Your task to perform on an android device: open app "Firefox Browser" (install if not already installed) Image 0: 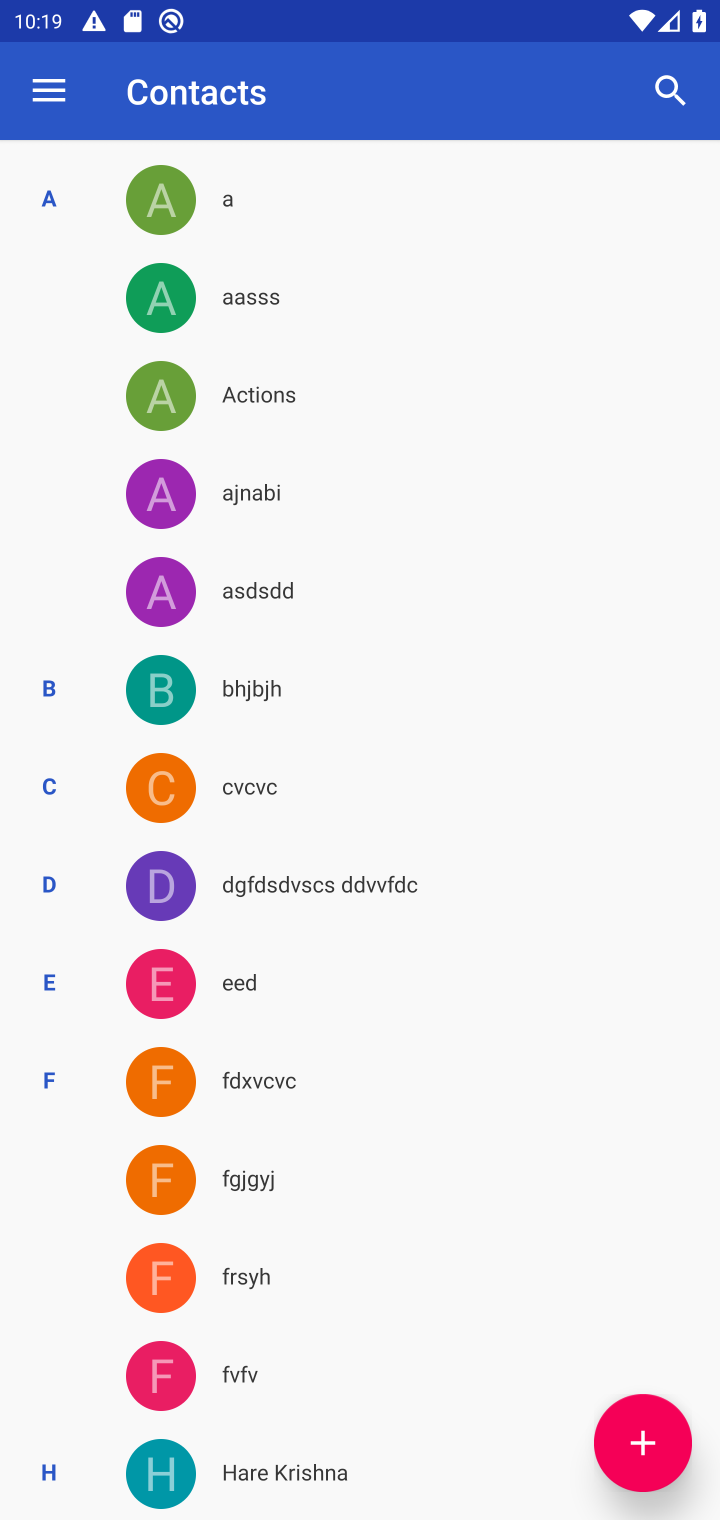
Step 0: press home button
Your task to perform on an android device: open app "Firefox Browser" (install if not already installed) Image 1: 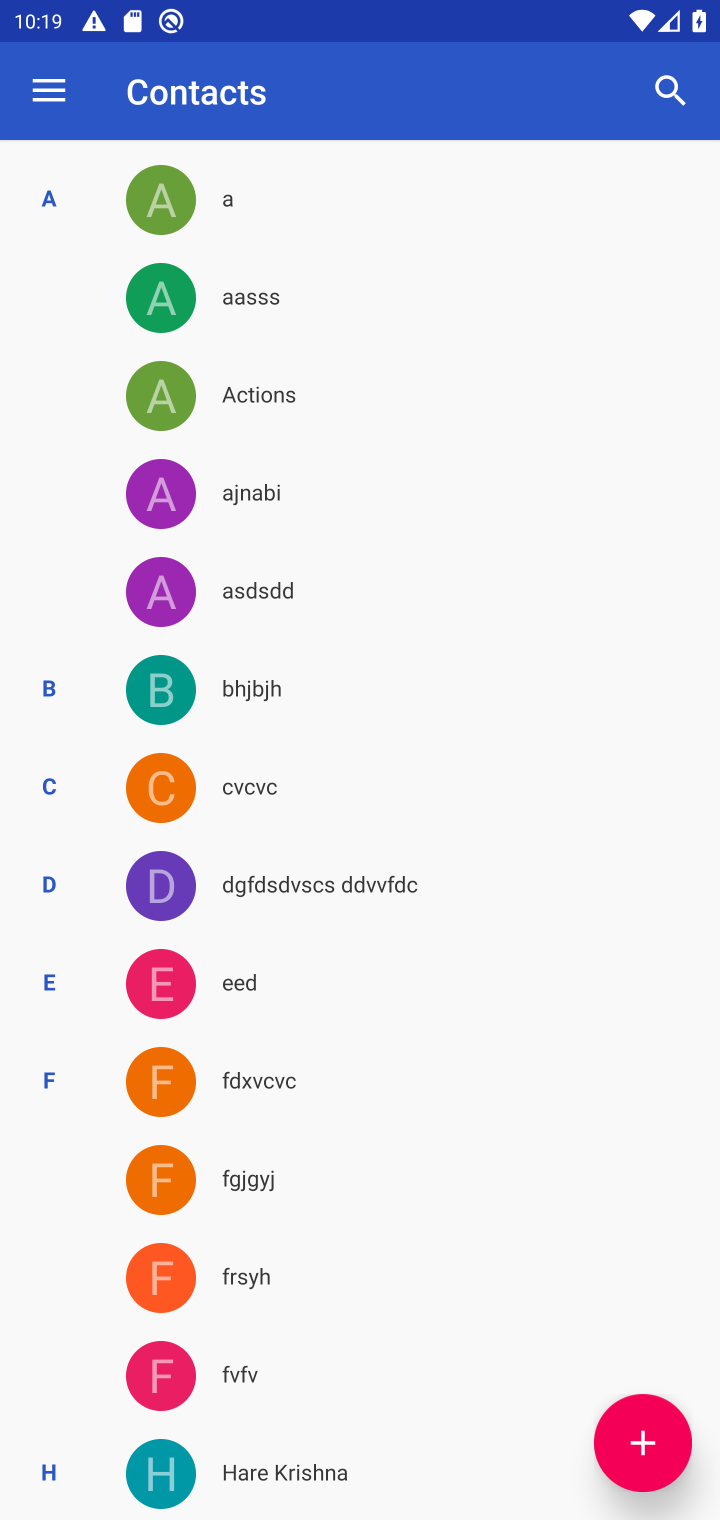
Step 1: press home button
Your task to perform on an android device: open app "Firefox Browser" (install if not already installed) Image 2: 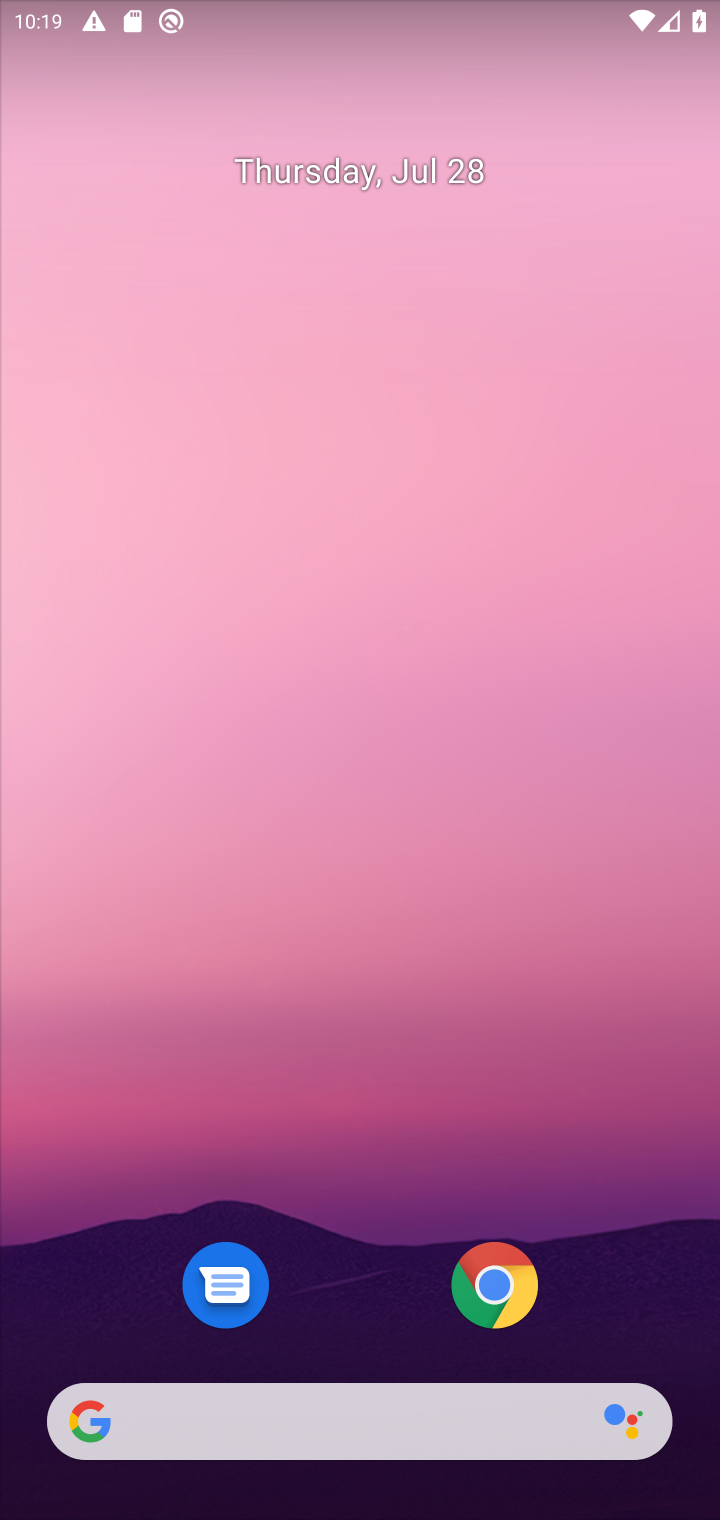
Step 2: drag from (483, 1078) to (273, 0)
Your task to perform on an android device: open app "Firefox Browser" (install if not already installed) Image 3: 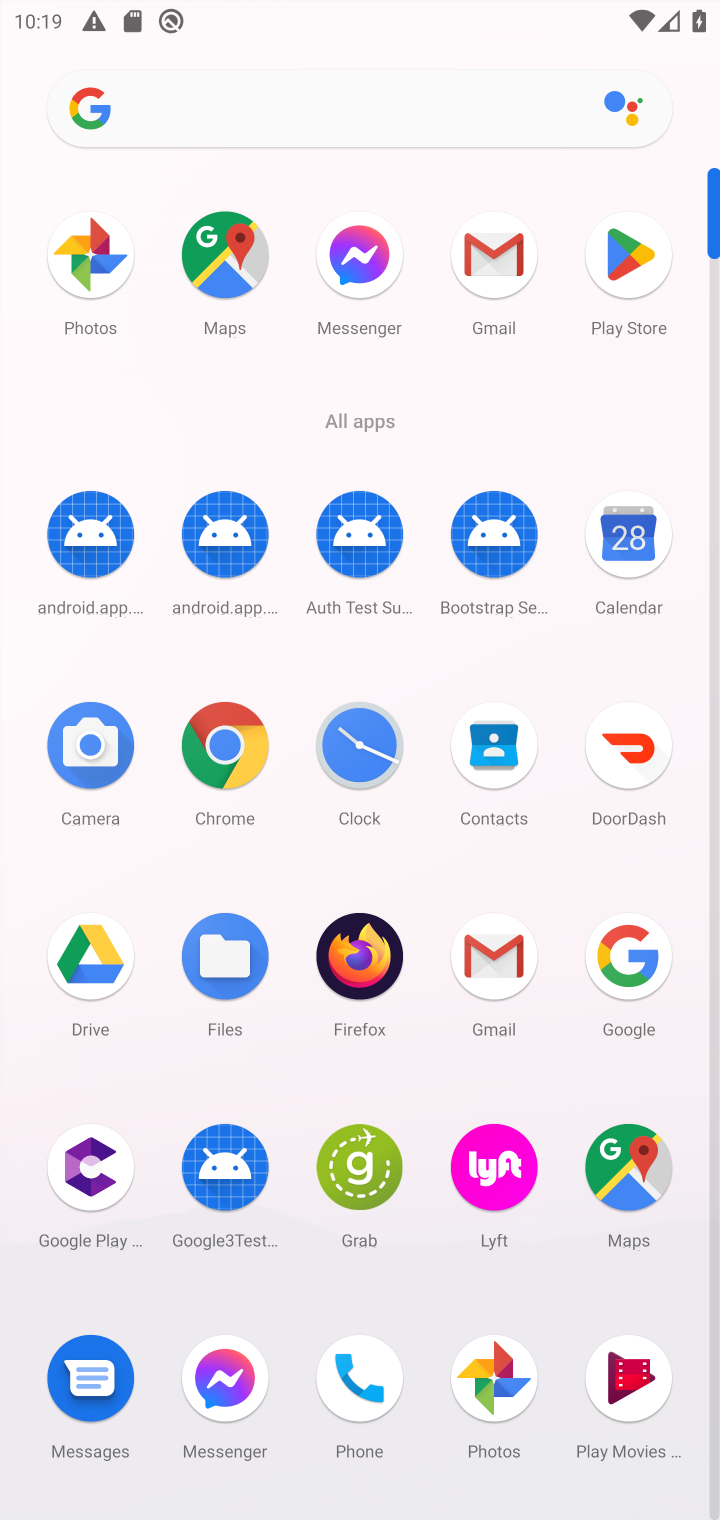
Step 3: click (628, 260)
Your task to perform on an android device: open app "Firefox Browser" (install if not already installed) Image 4: 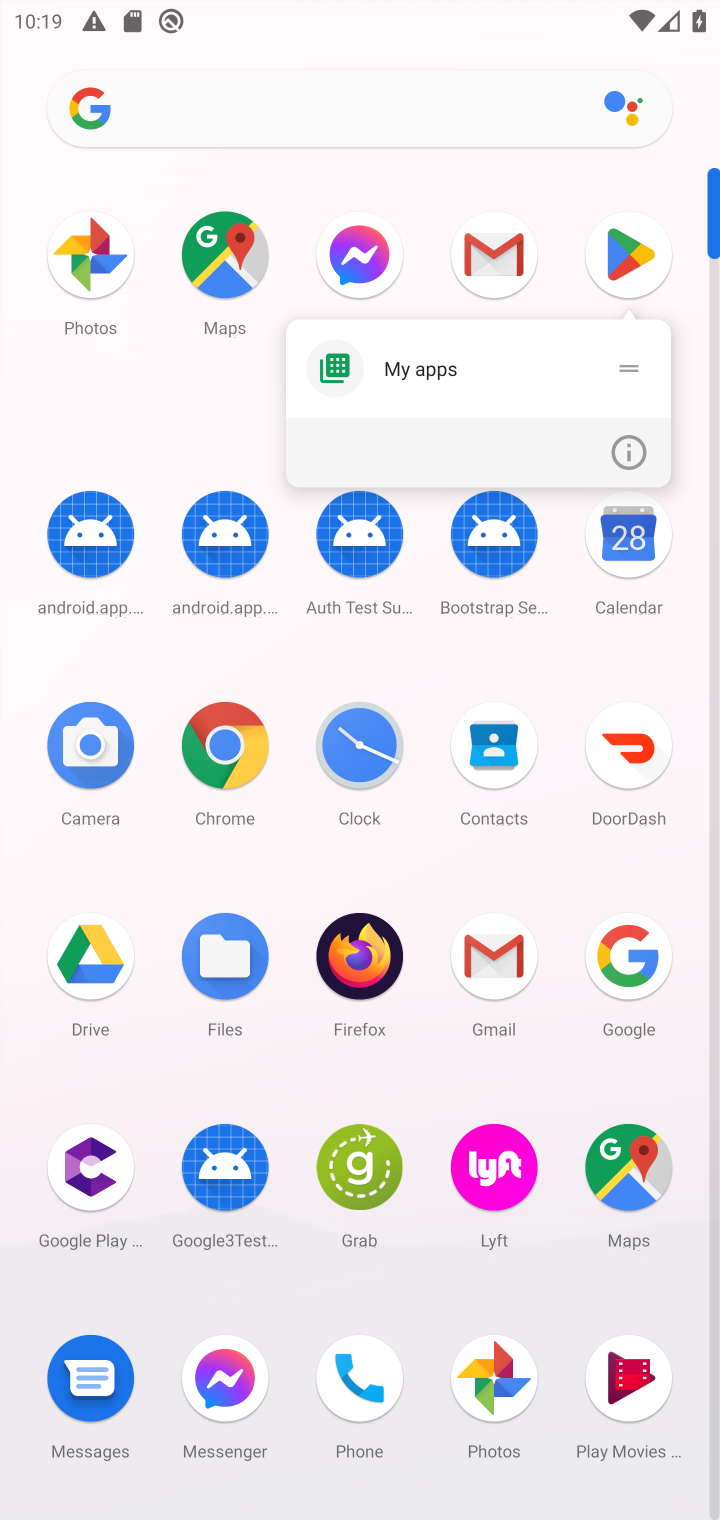
Step 4: click (628, 260)
Your task to perform on an android device: open app "Firefox Browser" (install if not already installed) Image 5: 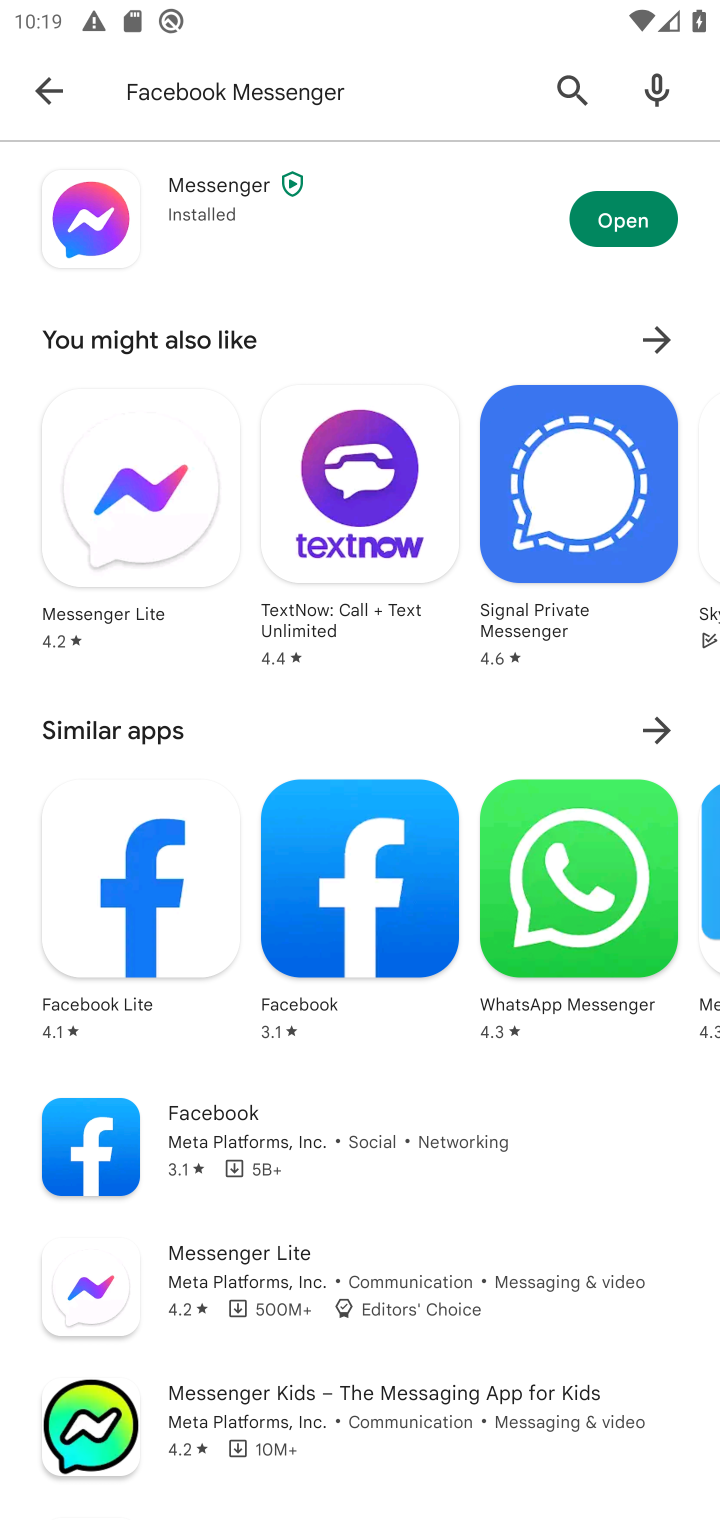
Step 5: click (387, 96)
Your task to perform on an android device: open app "Firefox Browser" (install if not already installed) Image 6: 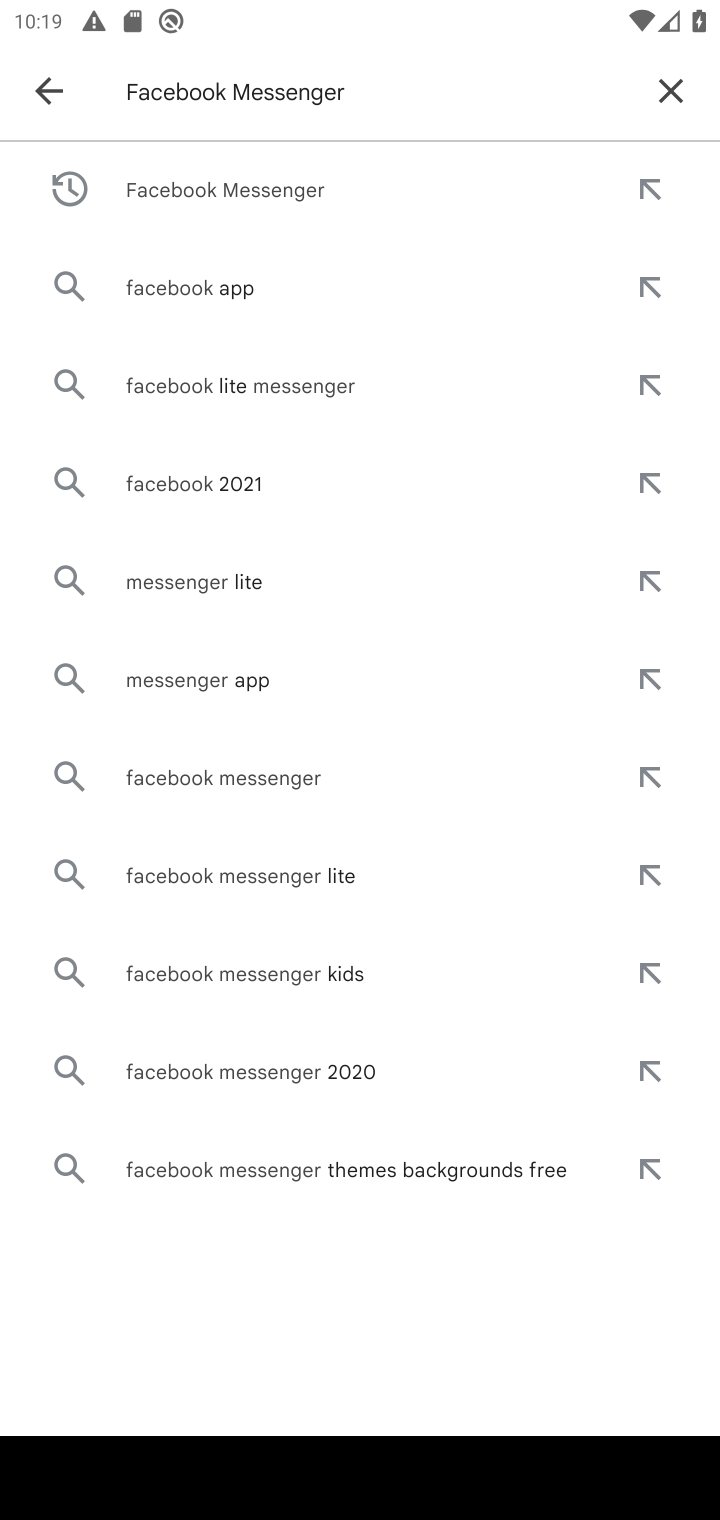
Step 6: click (669, 84)
Your task to perform on an android device: open app "Firefox Browser" (install if not already installed) Image 7: 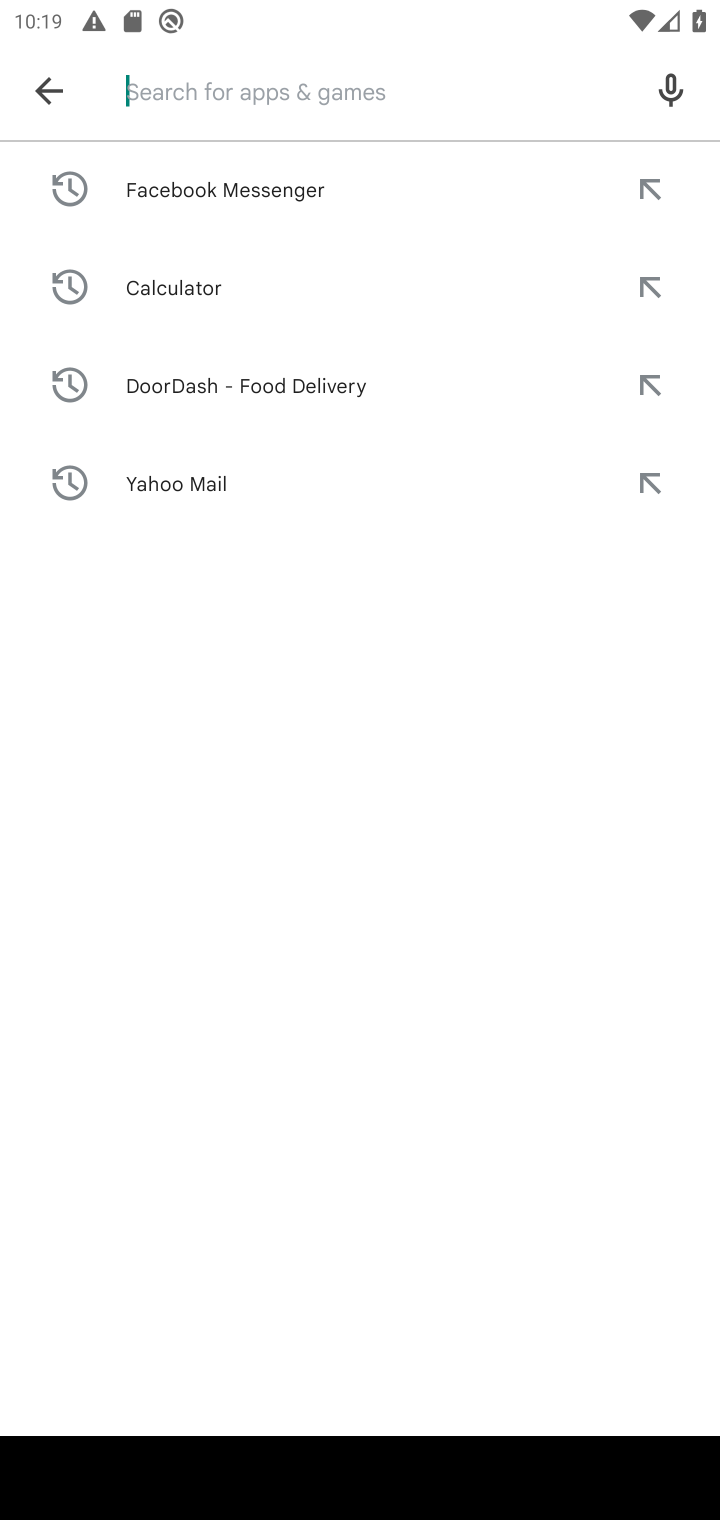
Step 7: type "Firefox Browser"
Your task to perform on an android device: open app "Firefox Browser" (install if not already installed) Image 8: 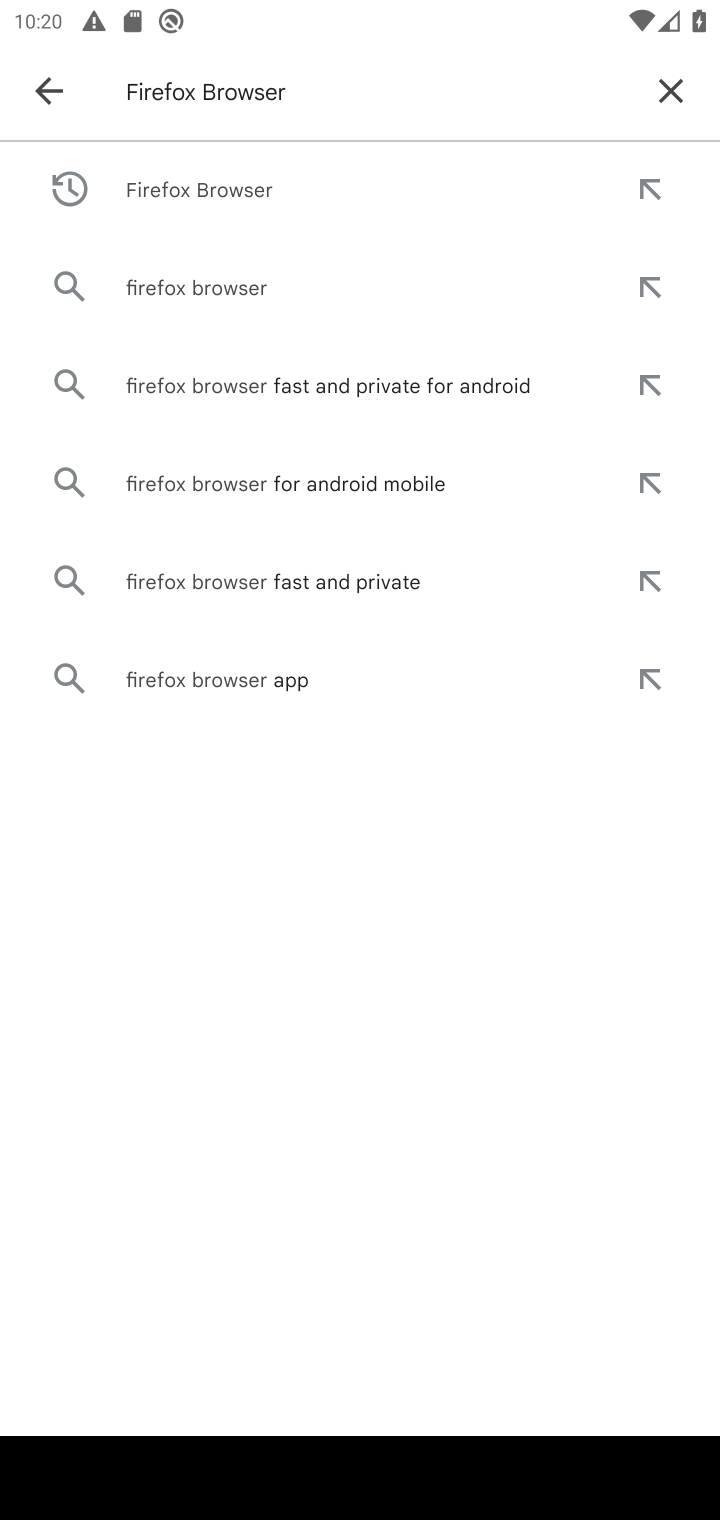
Step 8: press enter
Your task to perform on an android device: open app "Firefox Browser" (install if not already installed) Image 9: 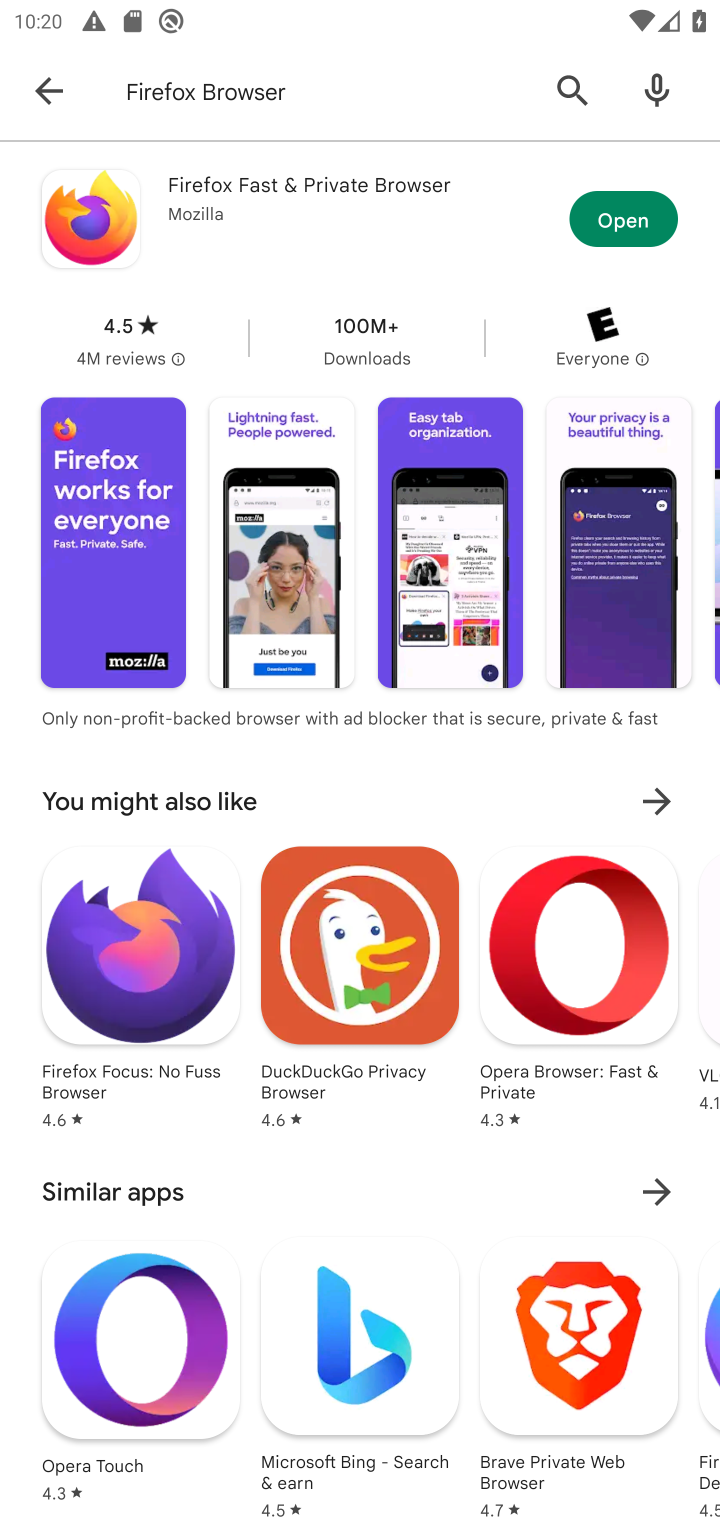
Step 9: click (630, 204)
Your task to perform on an android device: open app "Firefox Browser" (install if not already installed) Image 10: 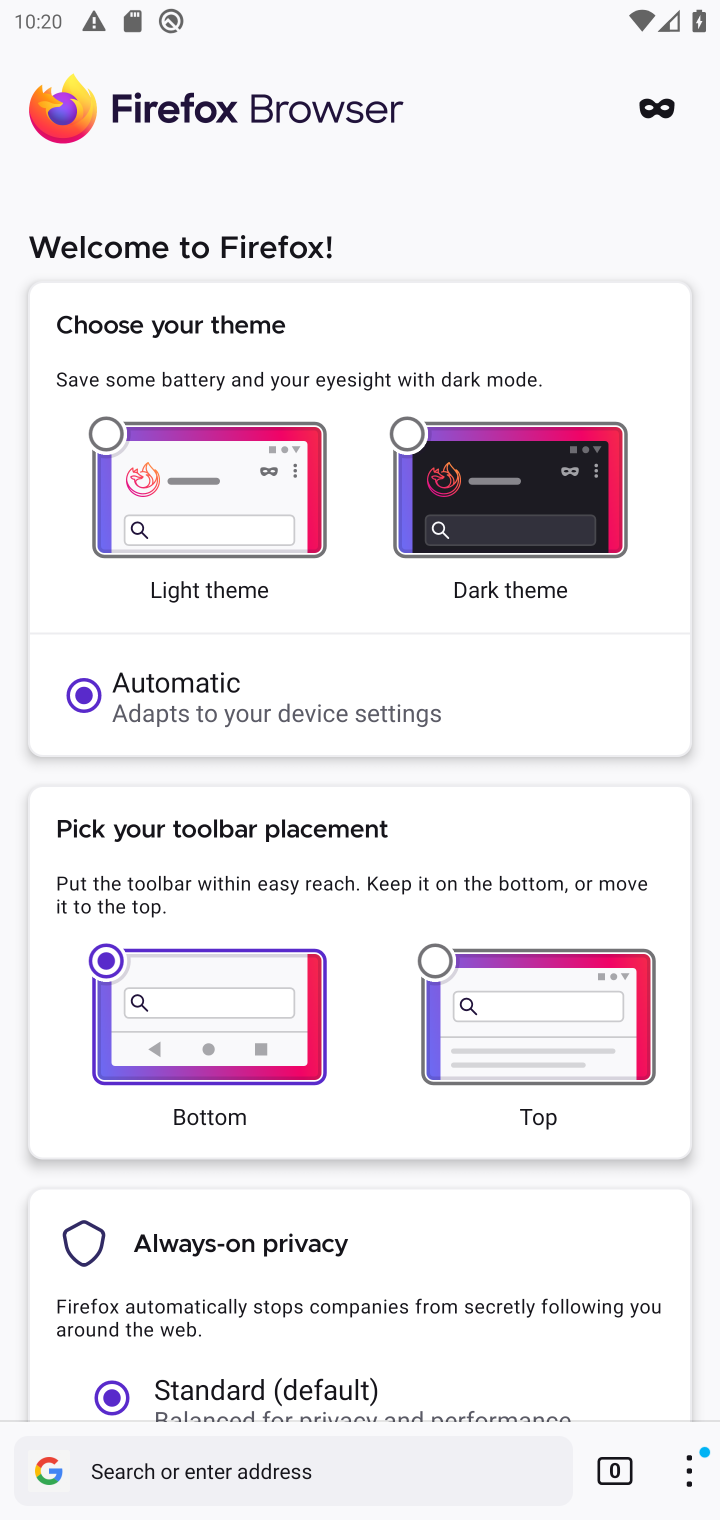
Step 10: task complete